Your task to perform on an android device: When is my next meeting? Image 0: 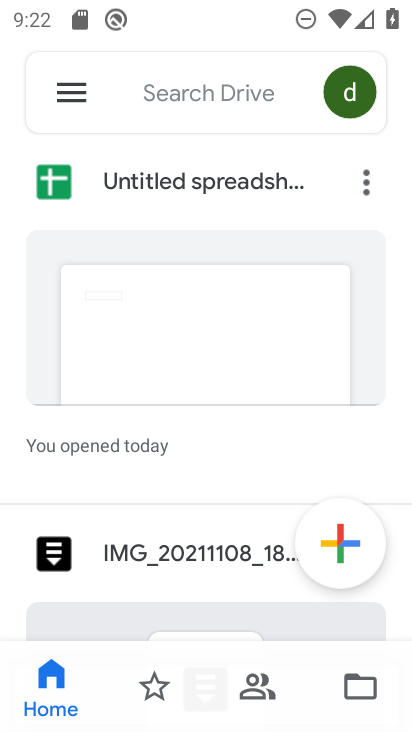
Step 0: press home button
Your task to perform on an android device: When is my next meeting? Image 1: 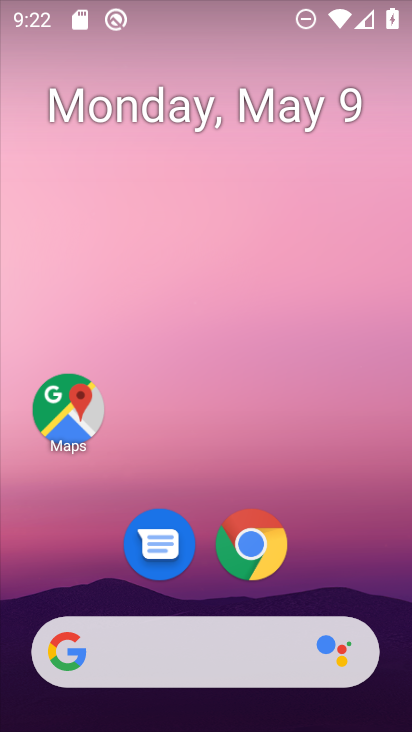
Step 1: drag from (341, 550) to (268, 85)
Your task to perform on an android device: When is my next meeting? Image 2: 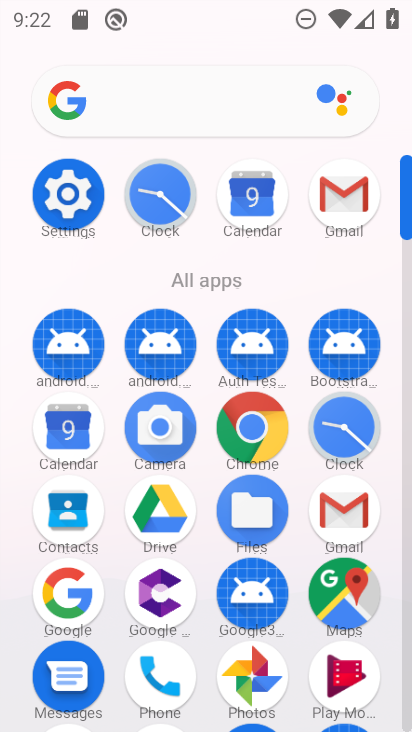
Step 2: click (61, 437)
Your task to perform on an android device: When is my next meeting? Image 3: 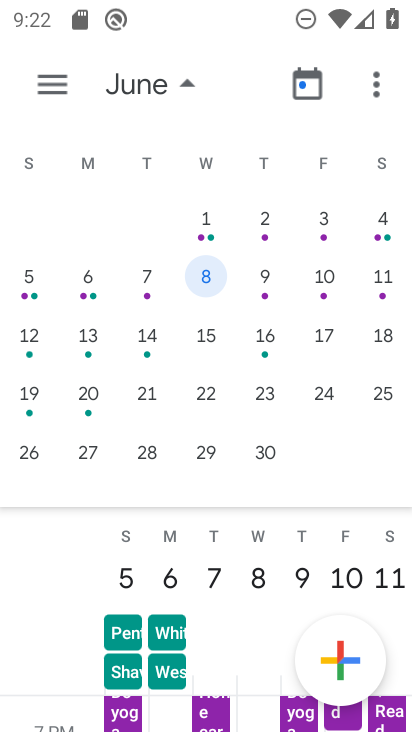
Step 3: drag from (36, 327) to (378, 309)
Your task to perform on an android device: When is my next meeting? Image 4: 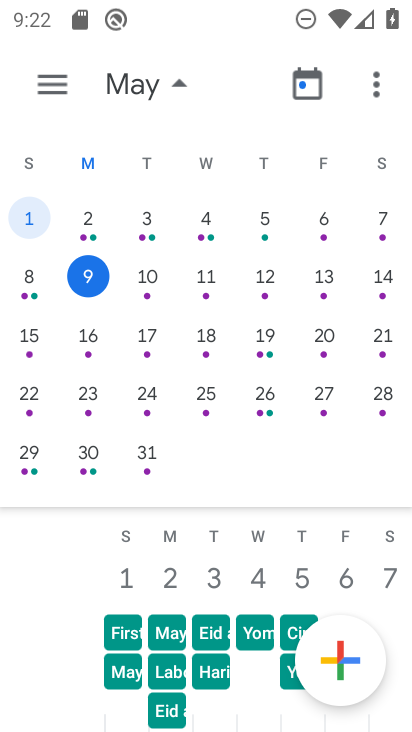
Step 4: click (82, 271)
Your task to perform on an android device: When is my next meeting? Image 5: 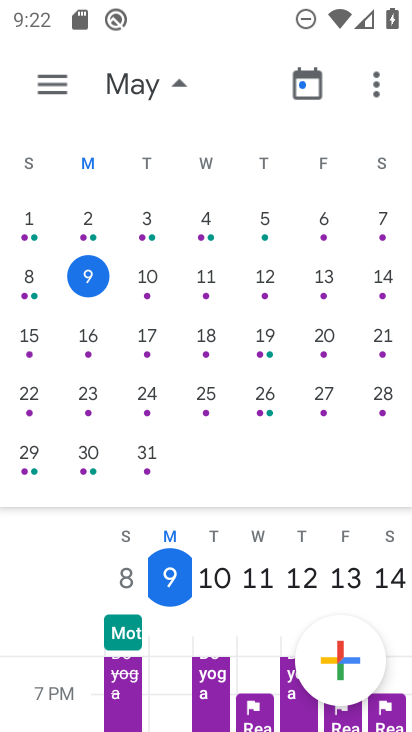
Step 5: task complete